Your task to perform on an android device: turn on data saver in the chrome app Image 0: 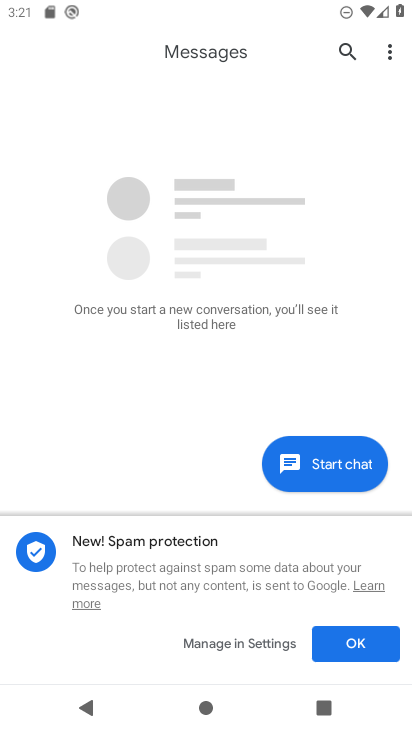
Step 0: press home button
Your task to perform on an android device: turn on data saver in the chrome app Image 1: 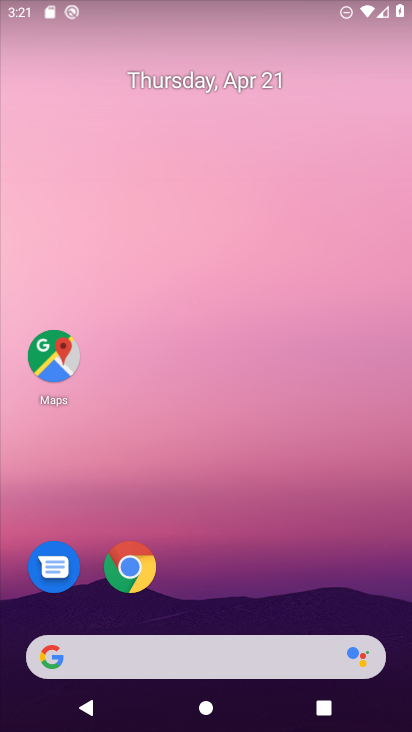
Step 1: click (132, 577)
Your task to perform on an android device: turn on data saver in the chrome app Image 2: 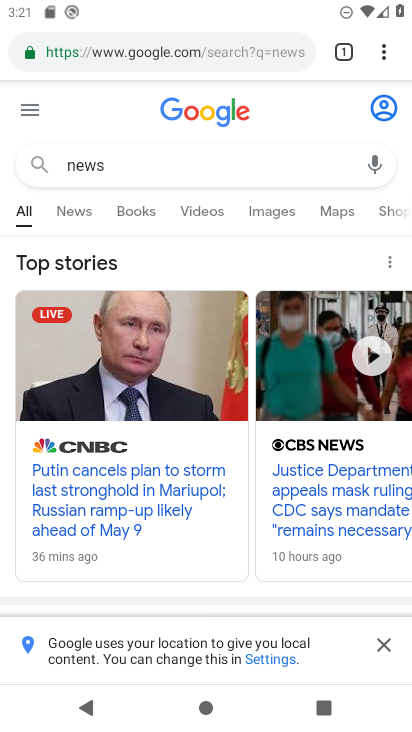
Step 2: click (382, 53)
Your task to perform on an android device: turn on data saver in the chrome app Image 3: 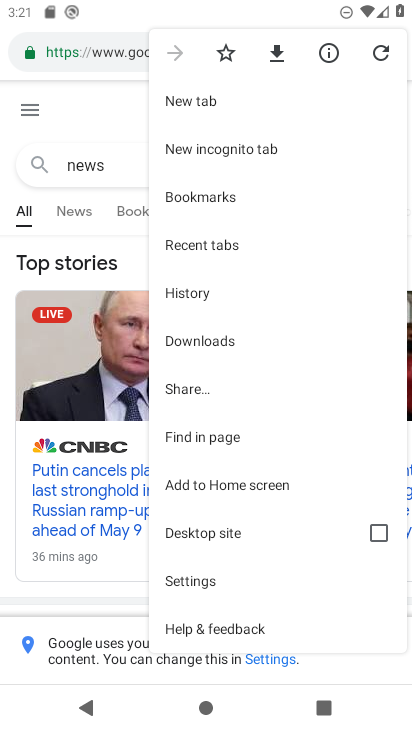
Step 3: drag from (315, 556) to (306, 159)
Your task to perform on an android device: turn on data saver in the chrome app Image 4: 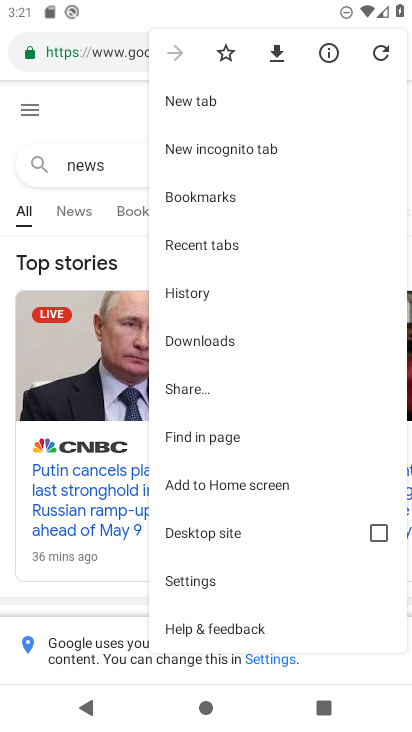
Step 4: click (207, 579)
Your task to perform on an android device: turn on data saver in the chrome app Image 5: 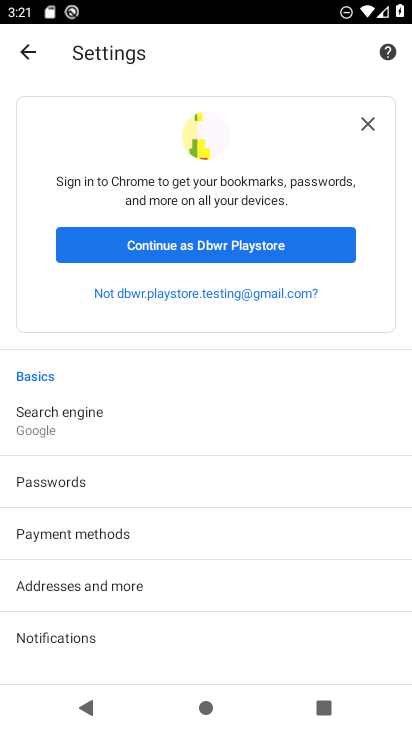
Step 5: drag from (141, 643) to (167, 210)
Your task to perform on an android device: turn on data saver in the chrome app Image 6: 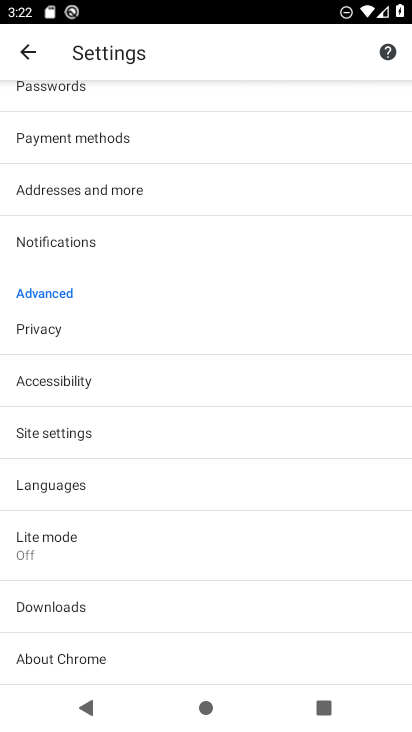
Step 6: click (124, 531)
Your task to perform on an android device: turn on data saver in the chrome app Image 7: 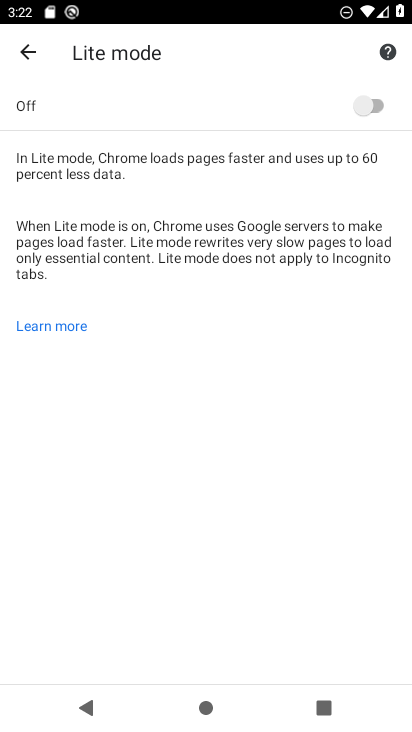
Step 7: click (372, 106)
Your task to perform on an android device: turn on data saver in the chrome app Image 8: 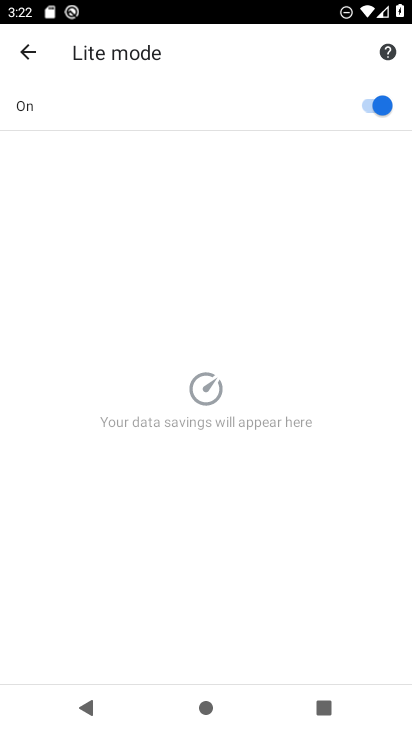
Step 8: task complete